Your task to perform on an android device: turn off wifi Image 0: 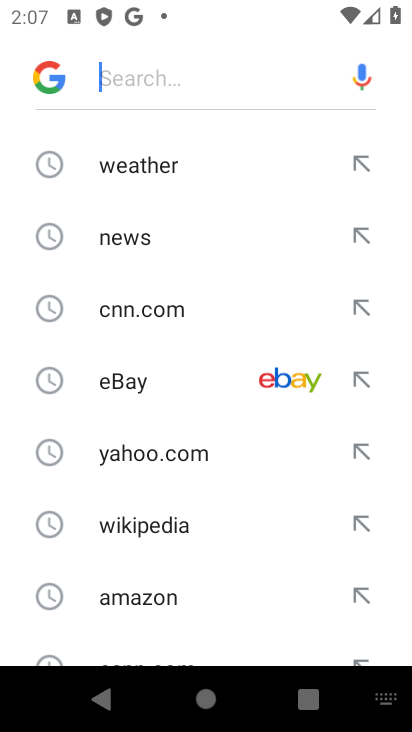
Step 0: drag from (175, 14) to (114, 602)
Your task to perform on an android device: turn off wifi Image 1: 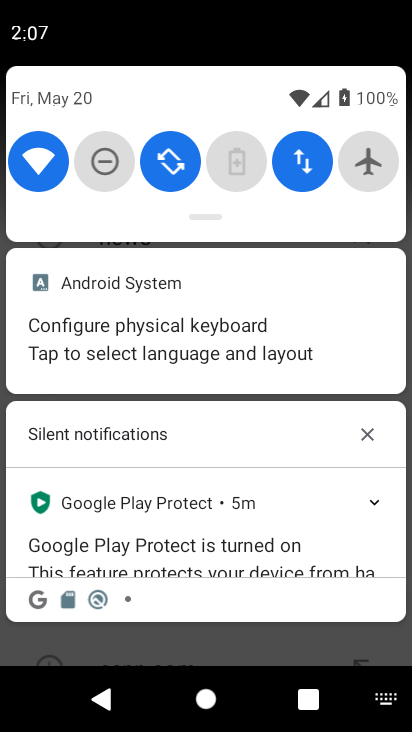
Step 1: click (47, 155)
Your task to perform on an android device: turn off wifi Image 2: 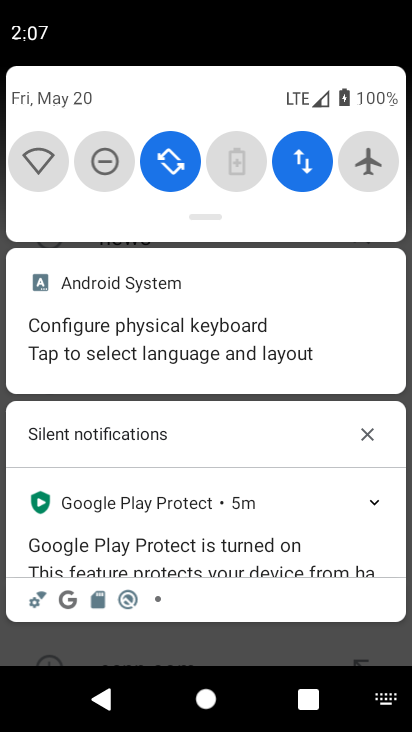
Step 2: task complete